Your task to perform on an android device: Open settings on Google Maps Image 0: 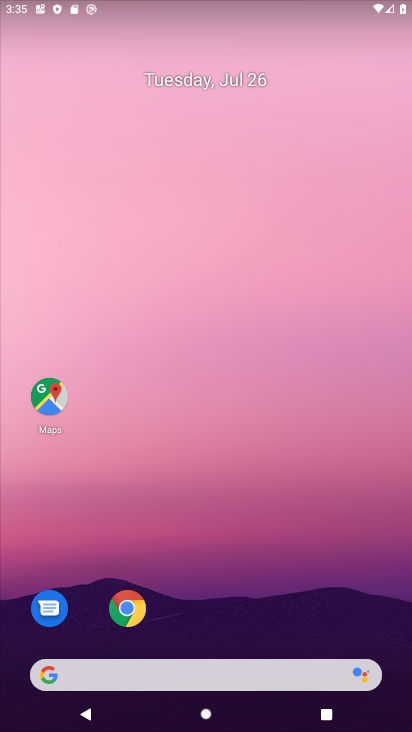
Step 0: drag from (262, 526) to (279, 178)
Your task to perform on an android device: Open settings on Google Maps Image 1: 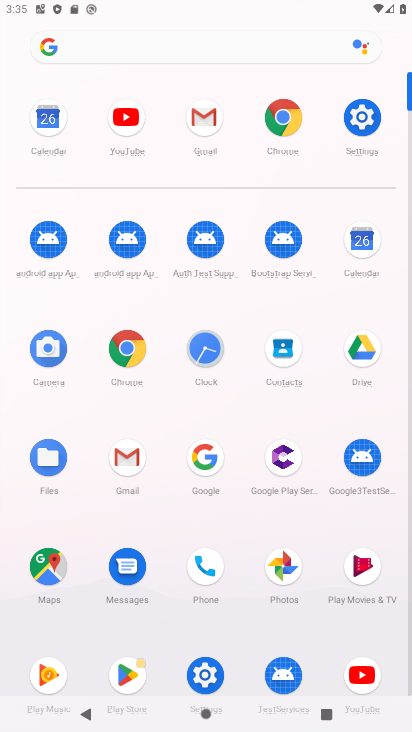
Step 1: click (49, 571)
Your task to perform on an android device: Open settings on Google Maps Image 2: 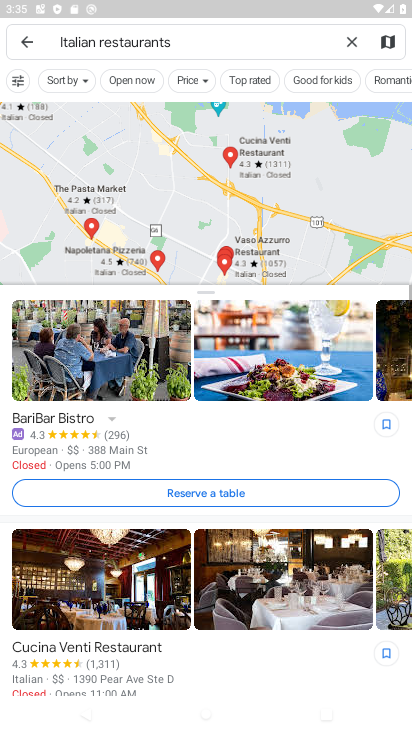
Step 2: click (26, 46)
Your task to perform on an android device: Open settings on Google Maps Image 3: 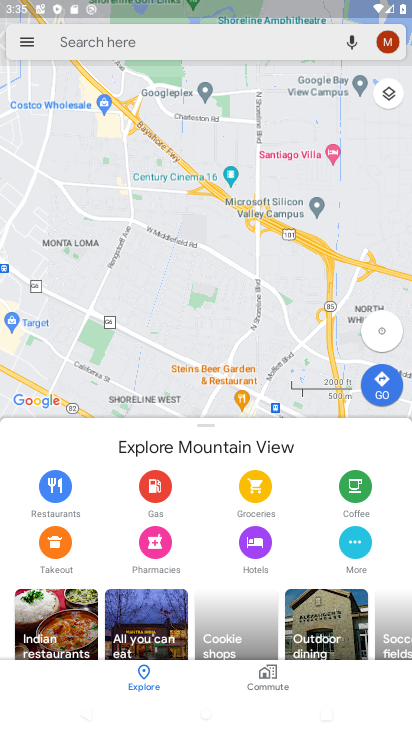
Step 3: click (28, 42)
Your task to perform on an android device: Open settings on Google Maps Image 4: 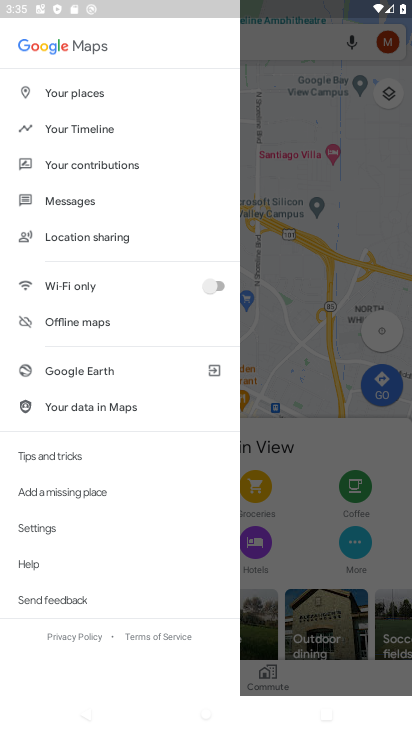
Step 4: click (47, 524)
Your task to perform on an android device: Open settings on Google Maps Image 5: 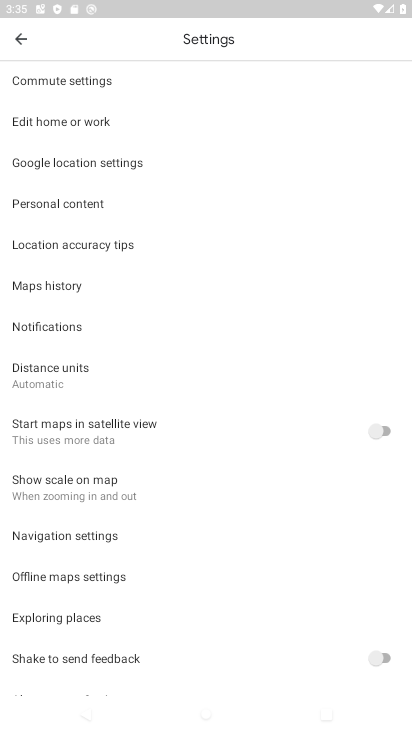
Step 5: task complete